Your task to perform on an android device: Search for Italian restaurants on Maps Image 0: 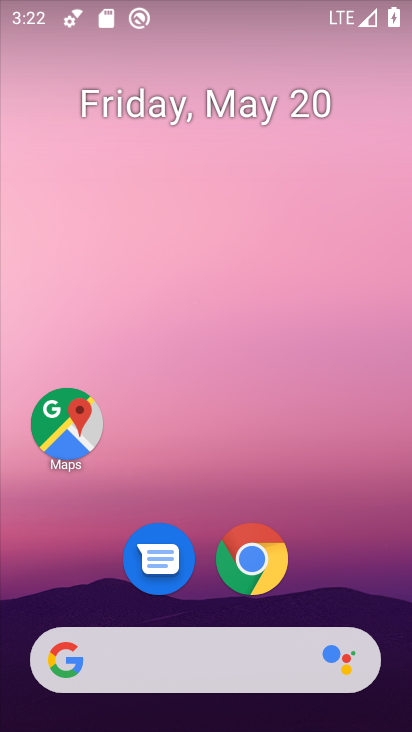
Step 0: click (66, 419)
Your task to perform on an android device: Search for Italian restaurants on Maps Image 1: 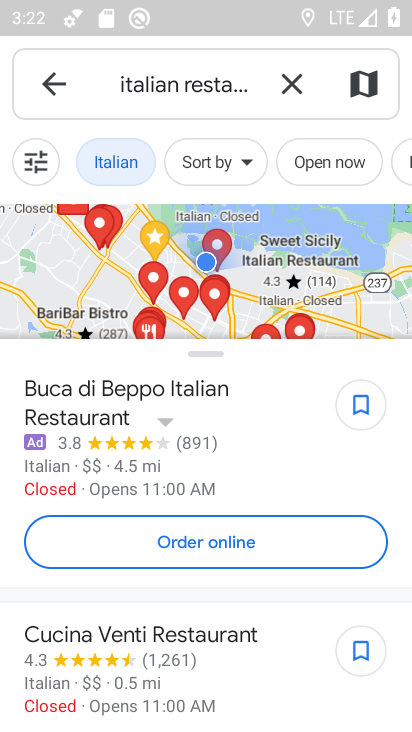
Step 1: task complete